Your task to perform on an android device: turn on the 12-hour format for clock Image 0: 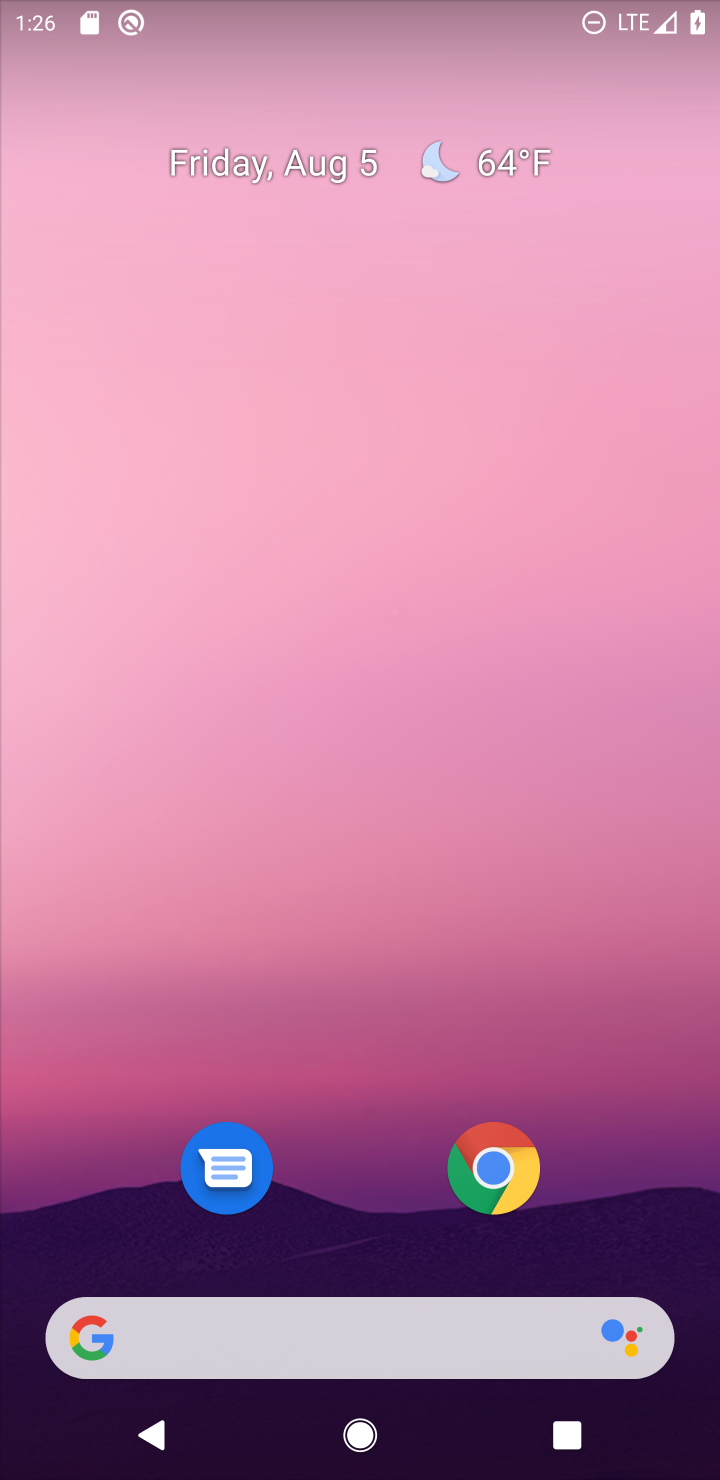
Step 0: drag from (637, 1217) to (422, 101)
Your task to perform on an android device: turn on the 12-hour format for clock Image 1: 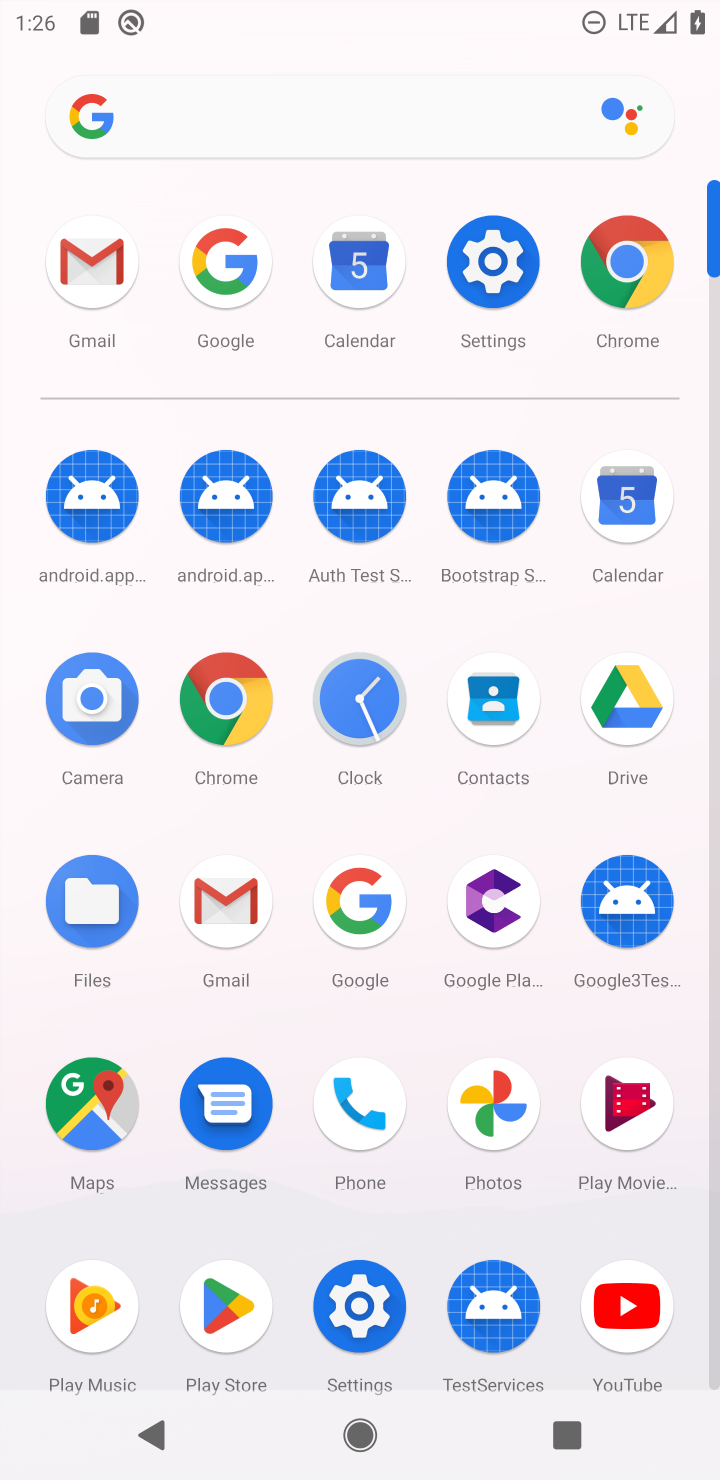
Step 1: click (368, 722)
Your task to perform on an android device: turn on the 12-hour format for clock Image 2: 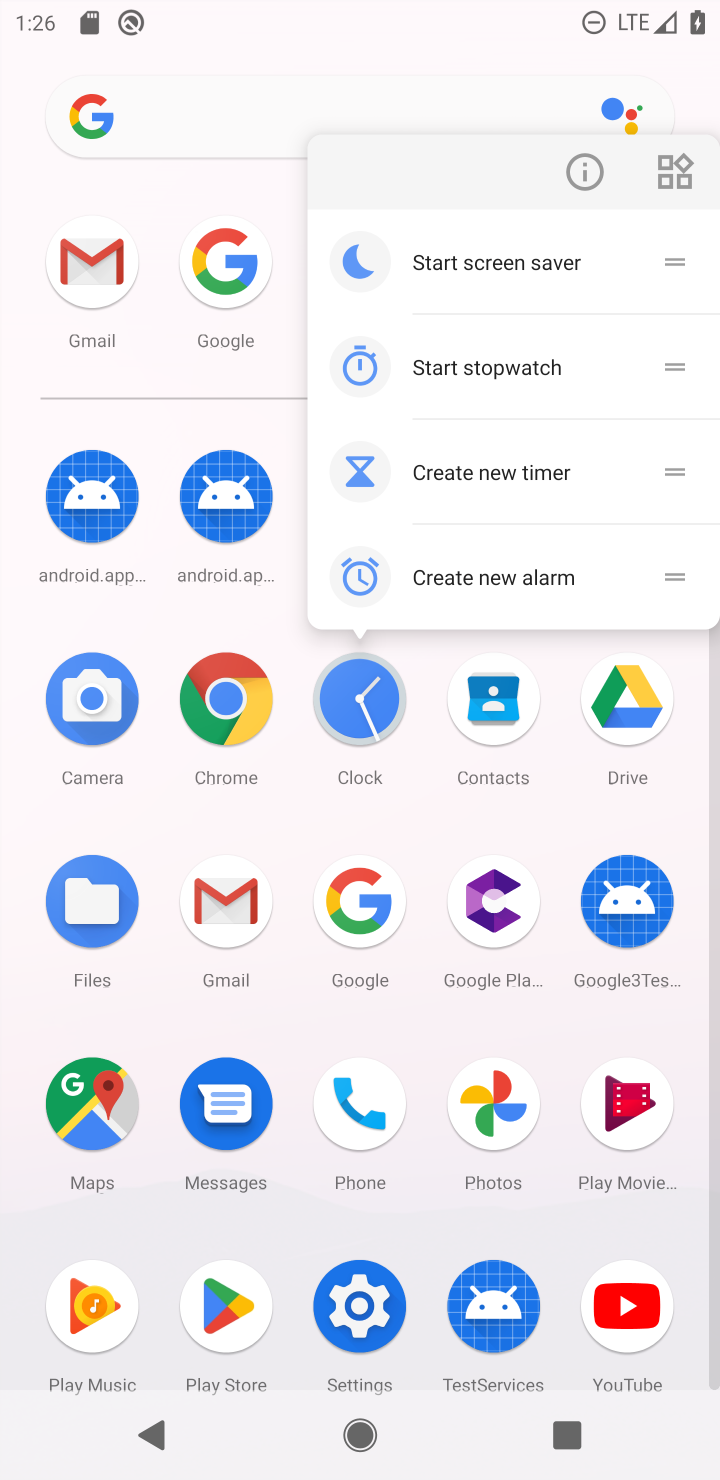
Step 2: click (368, 722)
Your task to perform on an android device: turn on the 12-hour format for clock Image 3: 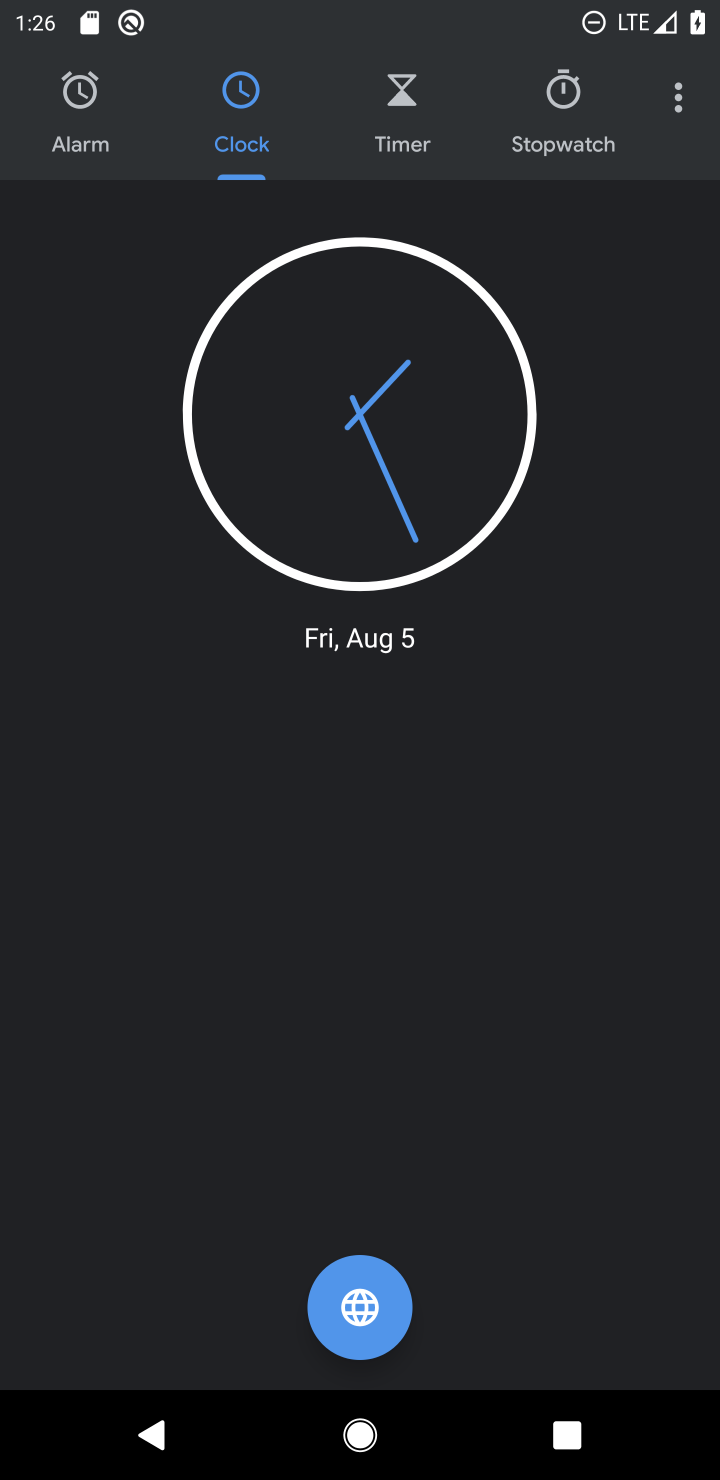
Step 3: click (666, 105)
Your task to perform on an android device: turn on the 12-hour format for clock Image 4: 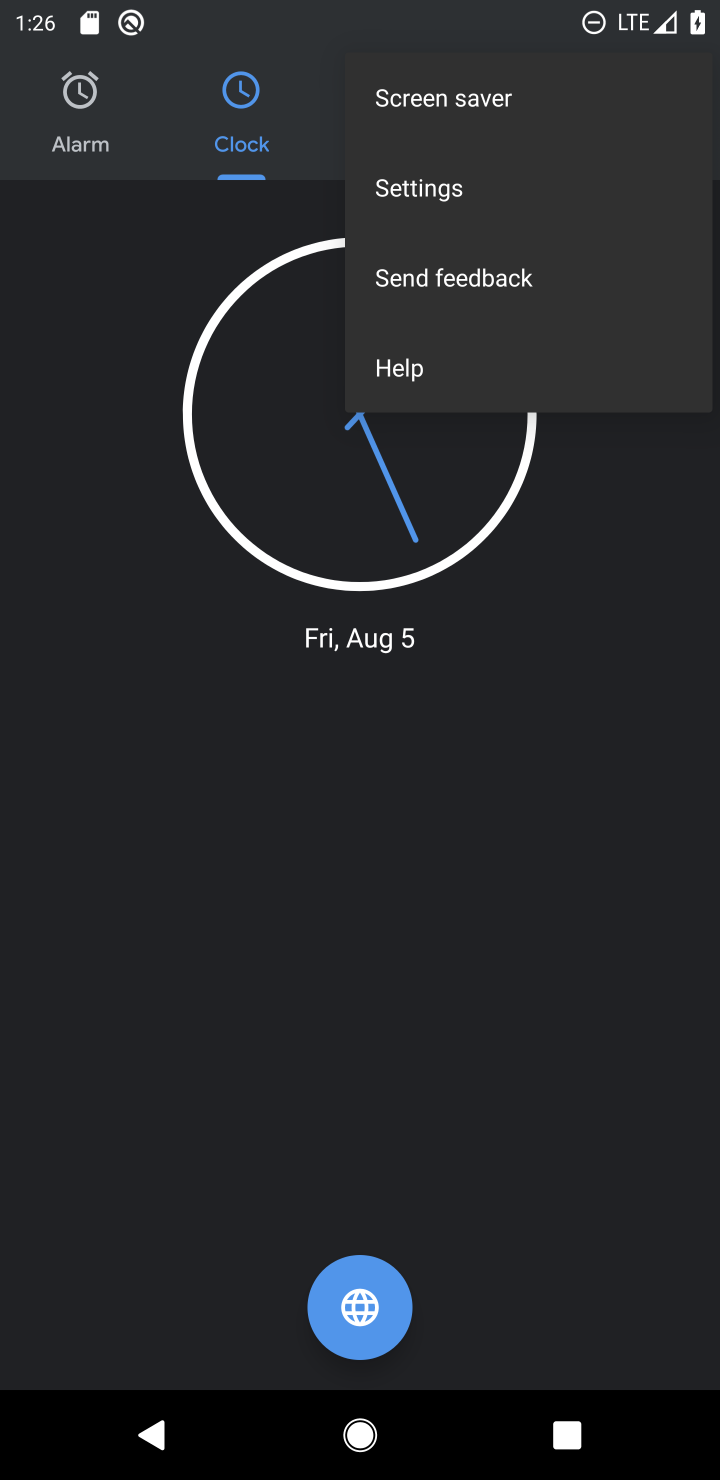
Step 4: click (426, 195)
Your task to perform on an android device: turn on the 12-hour format for clock Image 5: 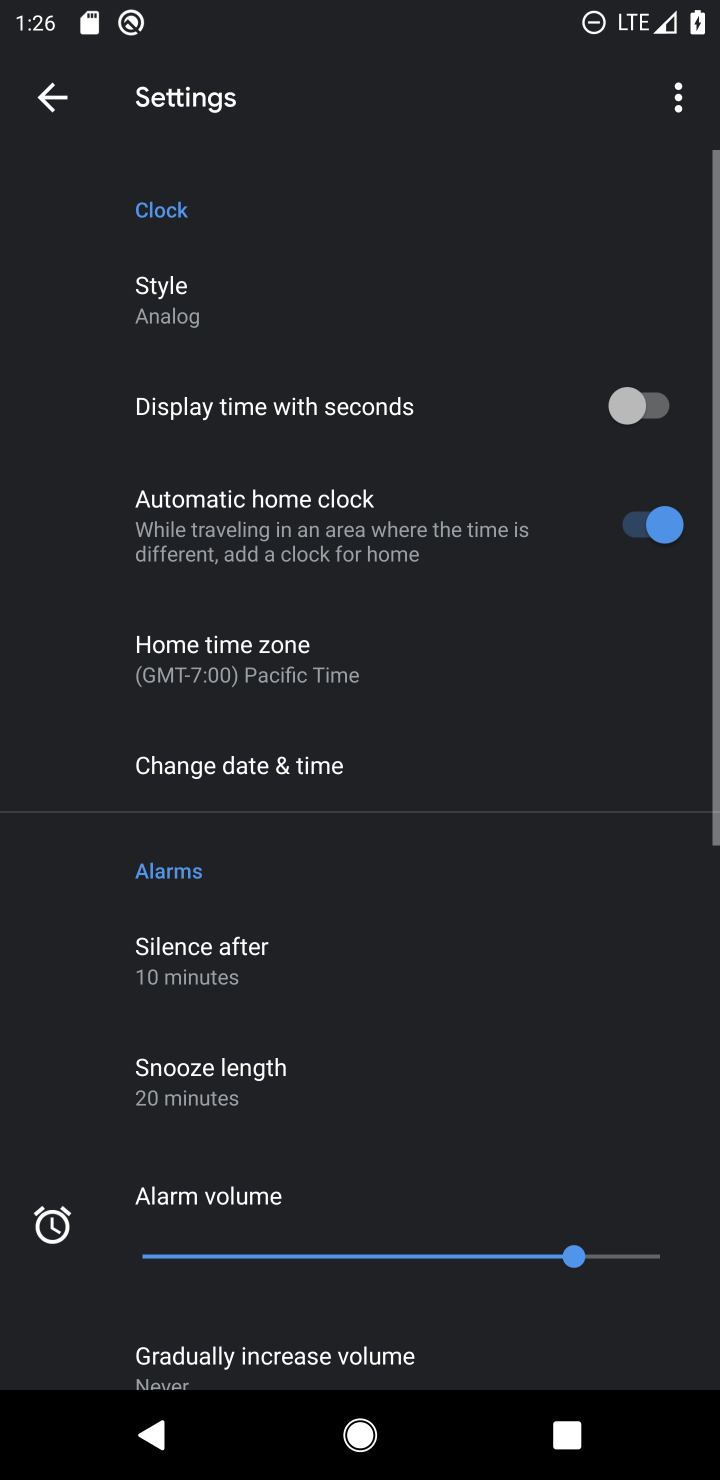
Step 5: click (267, 759)
Your task to perform on an android device: turn on the 12-hour format for clock Image 6: 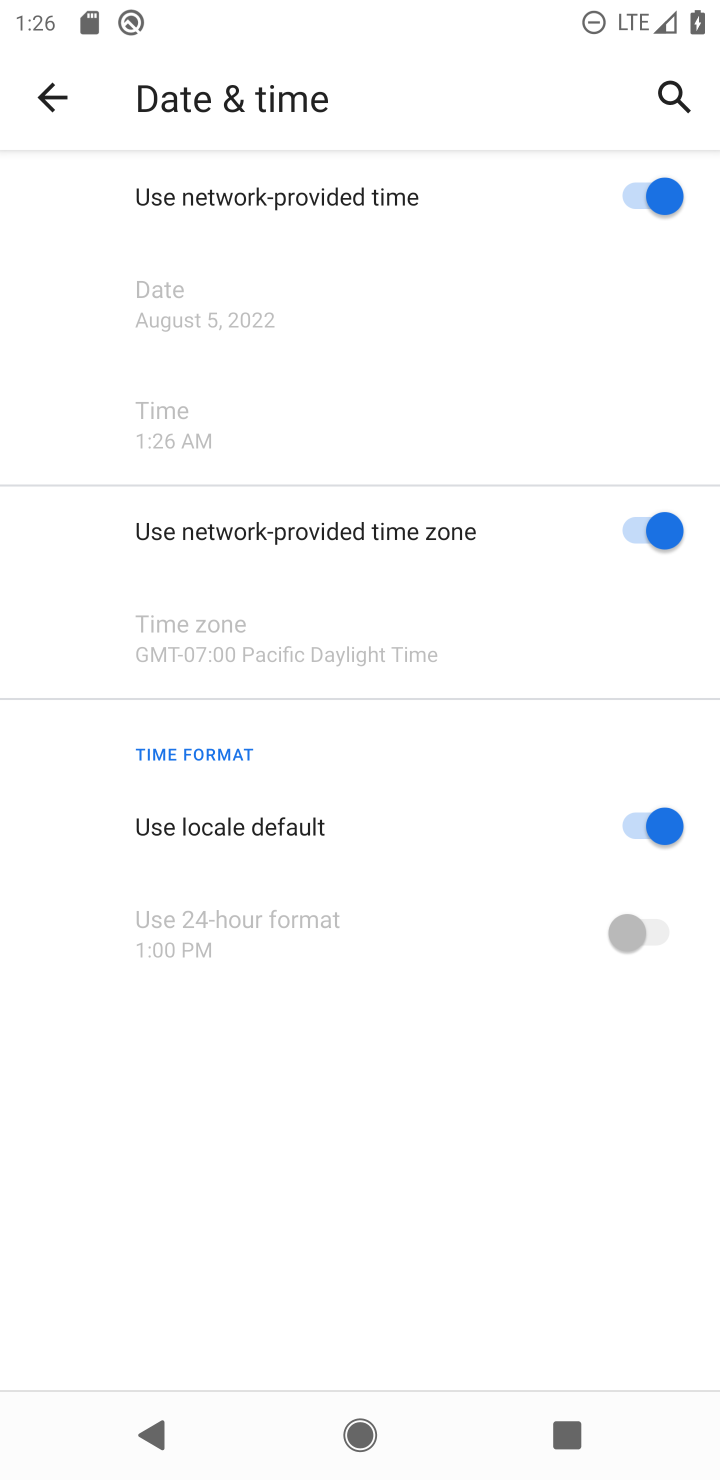
Step 6: task complete